Your task to perform on an android device: add a contact Image 0: 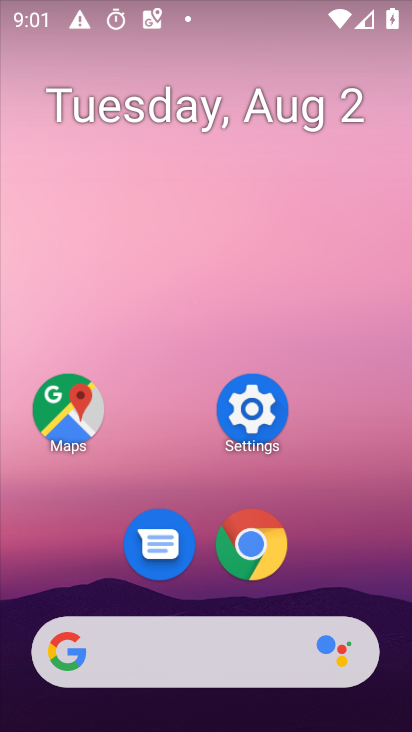
Step 0: drag from (185, 642) to (306, 173)
Your task to perform on an android device: add a contact Image 1: 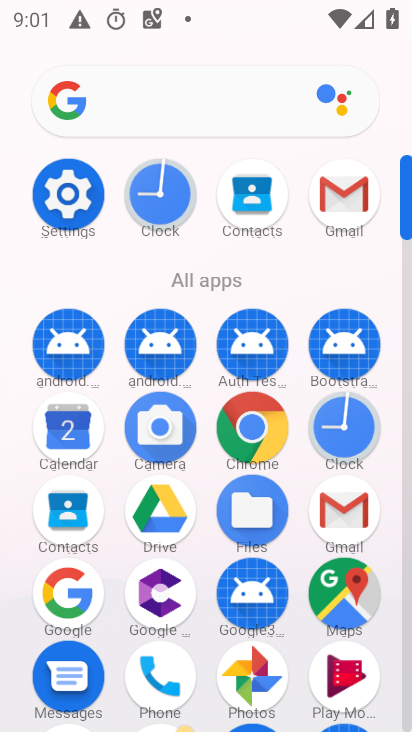
Step 1: click (66, 509)
Your task to perform on an android device: add a contact Image 2: 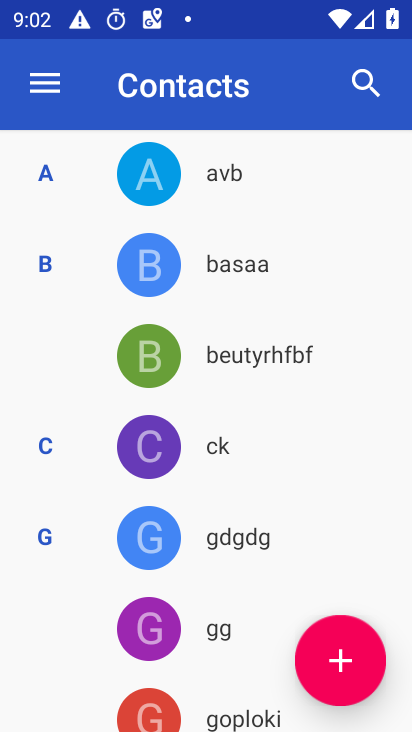
Step 2: click (341, 654)
Your task to perform on an android device: add a contact Image 3: 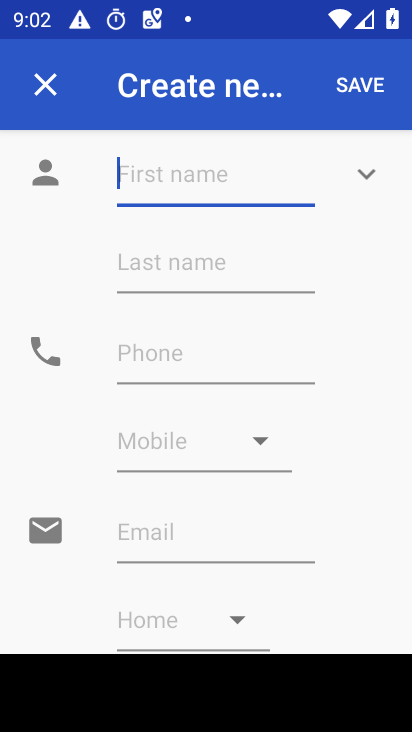
Step 3: type "buyyhjhgf"
Your task to perform on an android device: add a contact Image 4: 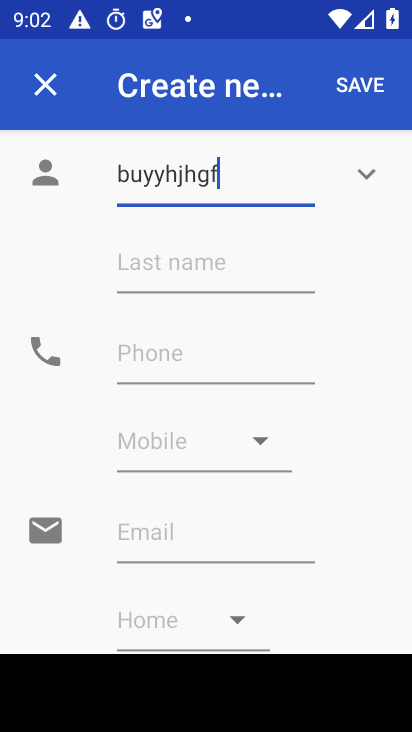
Step 4: click (186, 354)
Your task to perform on an android device: add a contact Image 5: 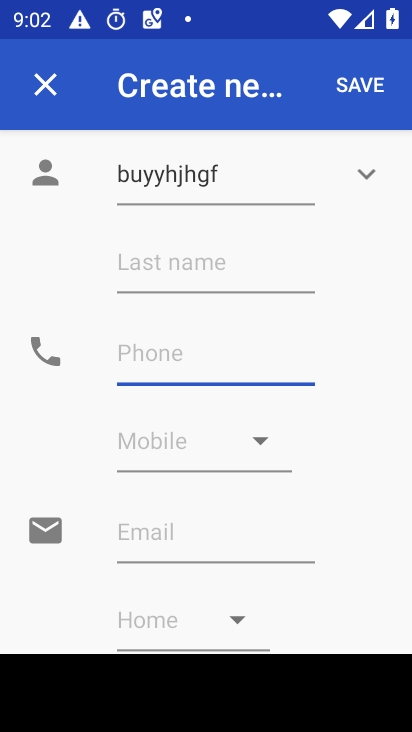
Step 5: type "2311445533"
Your task to perform on an android device: add a contact Image 6: 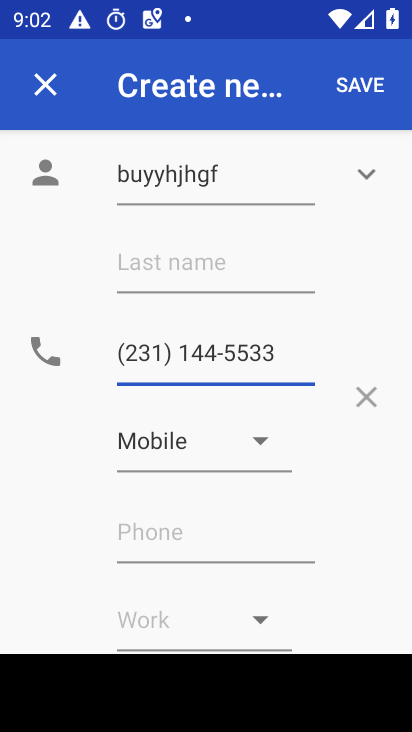
Step 6: click (357, 92)
Your task to perform on an android device: add a contact Image 7: 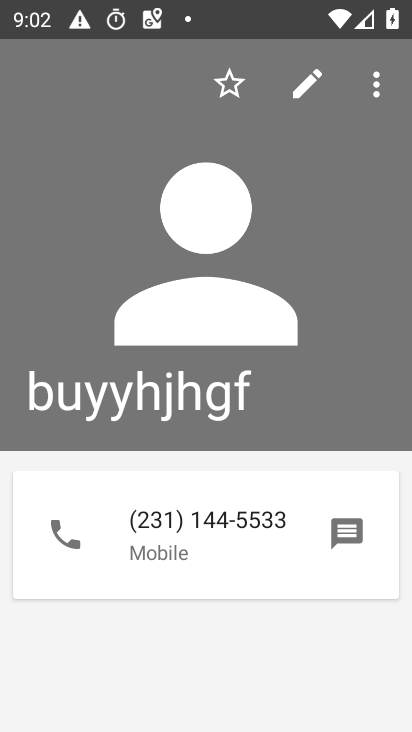
Step 7: task complete